Your task to perform on an android device: Go to notification settings Image 0: 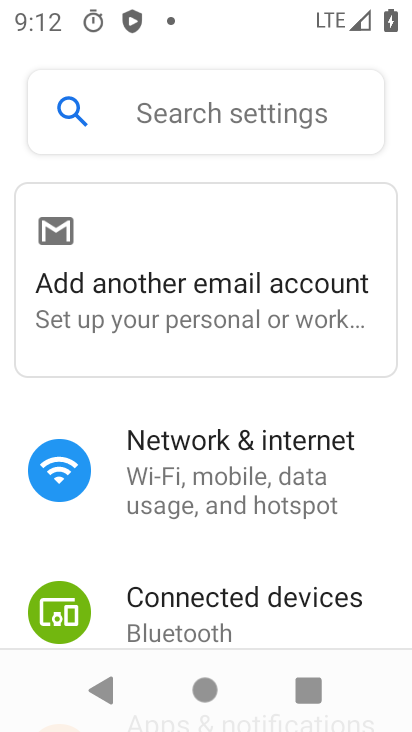
Step 0: drag from (249, 584) to (360, 17)
Your task to perform on an android device: Go to notification settings Image 1: 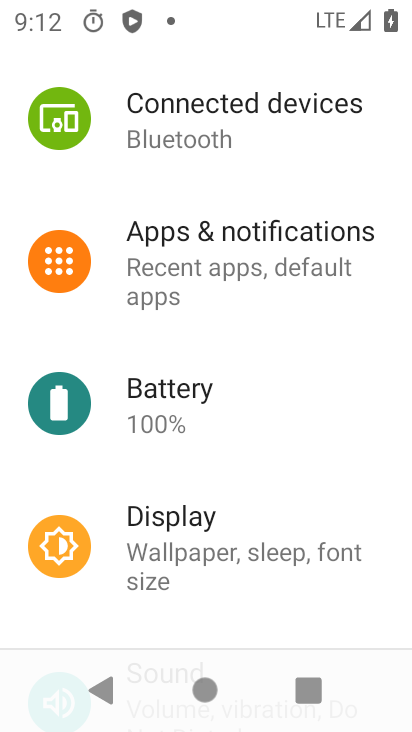
Step 1: drag from (200, 592) to (294, 148)
Your task to perform on an android device: Go to notification settings Image 2: 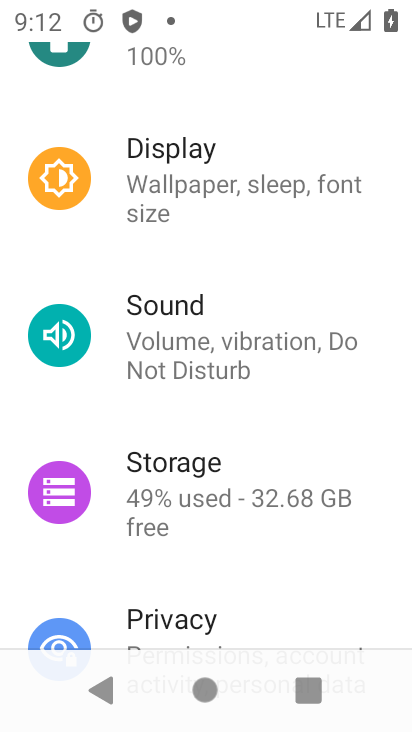
Step 2: drag from (234, 218) to (295, 728)
Your task to perform on an android device: Go to notification settings Image 3: 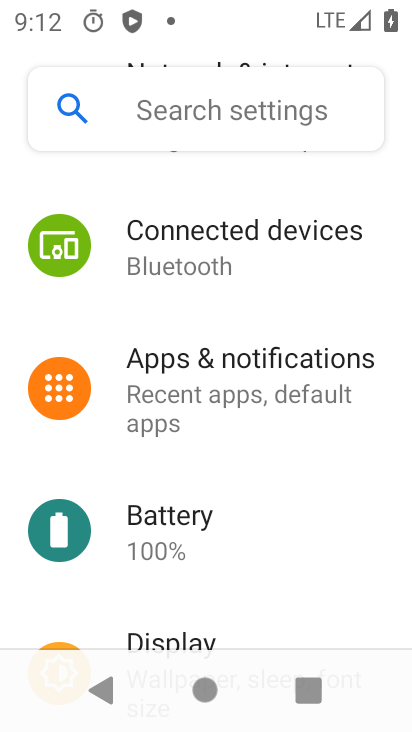
Step 3: click (194, 385)
Your task to perform on an android device: Go to notification settings Image 4: 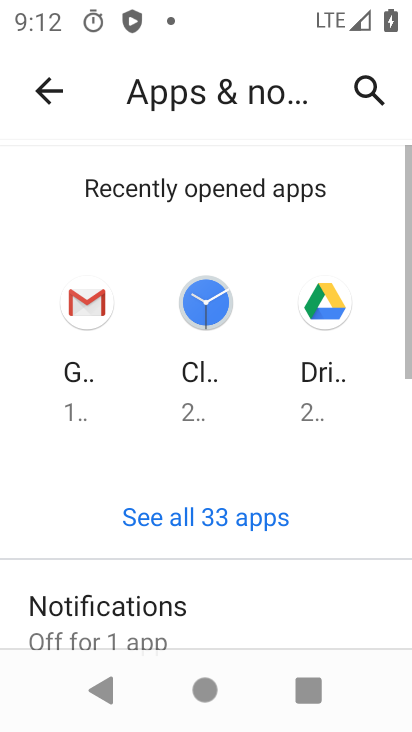
Step 4: drag from (216, 596) to (233, 33)
Your task to perform on an android device: Go to notification settings Image 5: 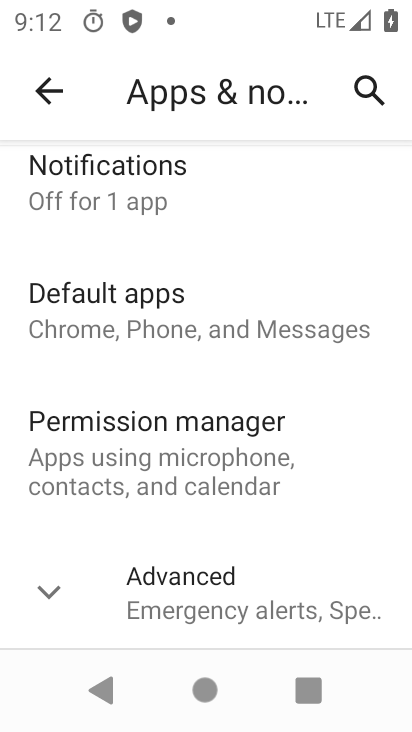
Step 5: click (197, 191)
Your task to perform on an android device: Go to notification settings Image 6: 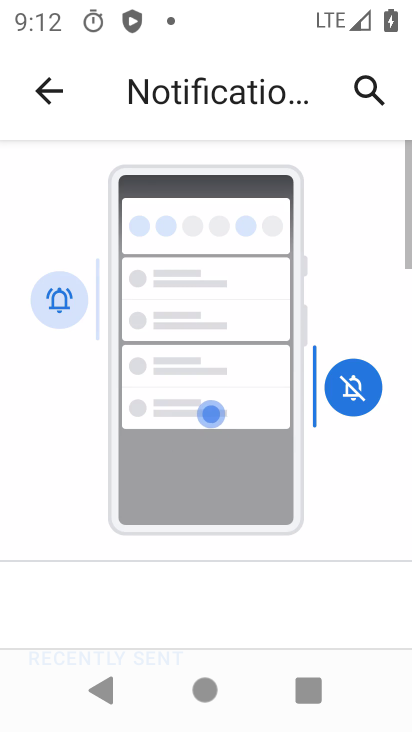
Step 6: drag from (279, 521) to (287, 45)
Your task to perform on an android device: Go to notification settings Image 7: 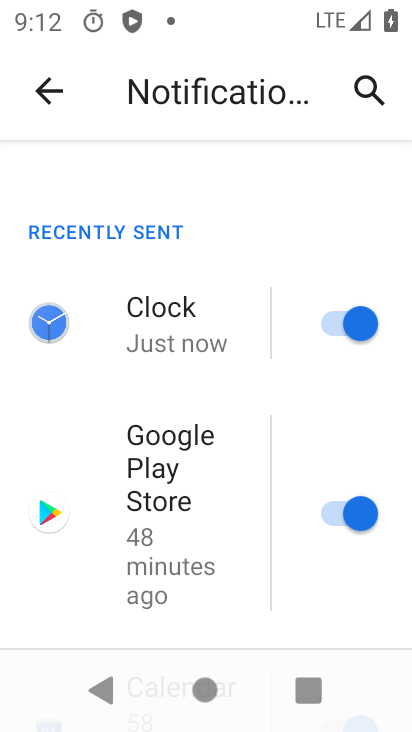
Step 7: drag from (251, 494) to (408, 230)
Your task to perform on an android device: Go to notification settings Image 8: 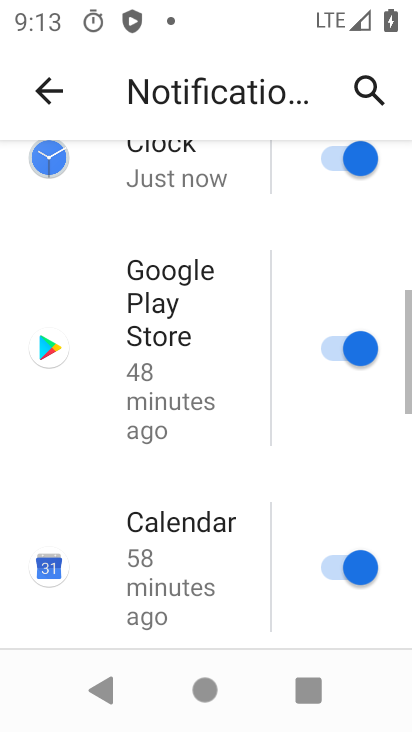
Step 8: drag from (227, 490) to (285, 28)
Your task to perform on an android device: Go to notification settings Image 9: 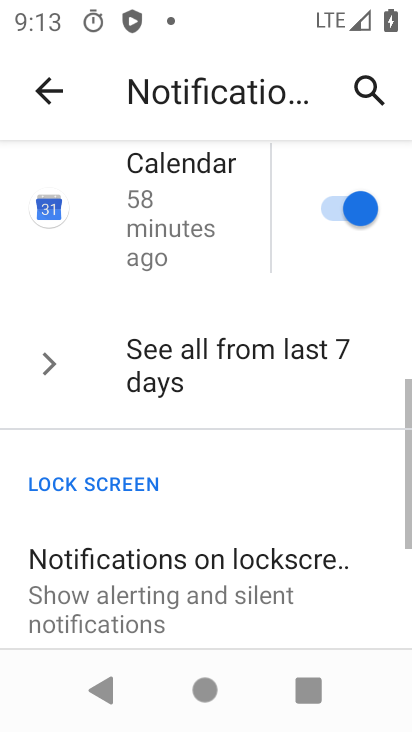
Step 9: drag from (230, 551) to (275, 2)
Your task to perform on an android device: Go to notification settings Image 10: 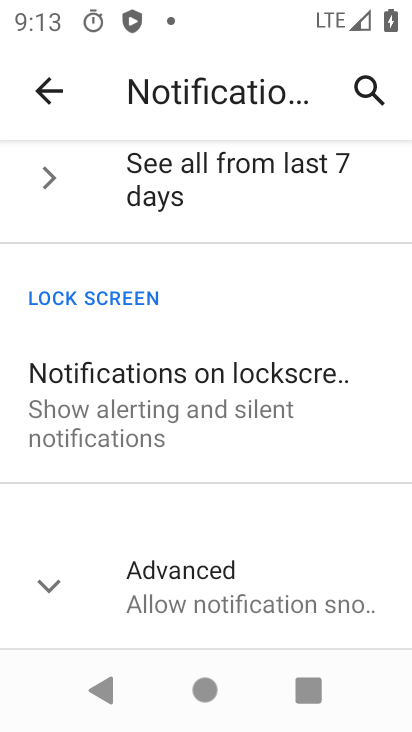
Step 10: drag from (225, 224) to (323, 717)
Your task to perform on an android device: Go to notification settings Image 11: 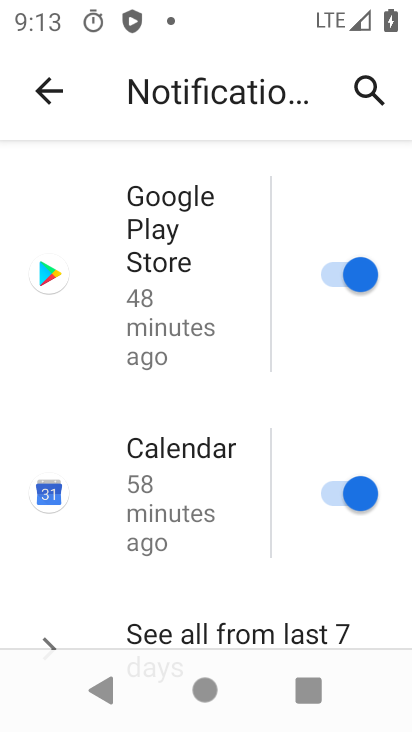
Step 11: drag from (248, 257) to (303, 704)
Your task to perform on an android device: Go to notification settings Image 12: 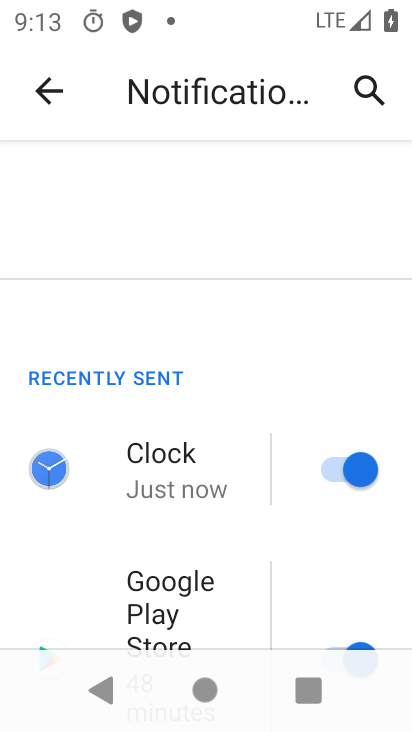
Step 12: click (343, 472)
Your task to perform on an android device: Go to notification settings Image 13: 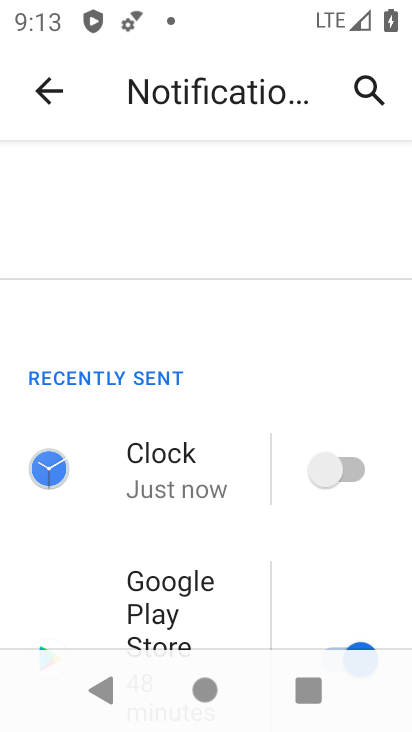
Step 13: task complete